Your task to perform on an android device: see tabs open on other devices in the chrome app Image 0: 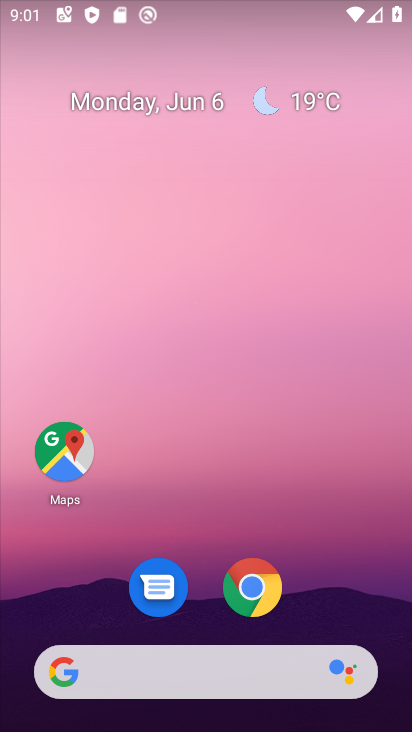
Step 0: click (257, 579)
Your task to perform on an android device: see tabs open on other devices in the chrome app Image 1: 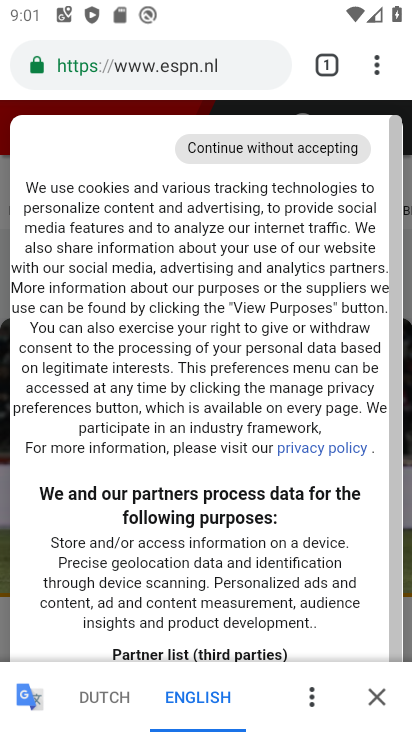
Step 1: task complete